Your task to perform on an android device: turn off translation in the chrome app Image 0: 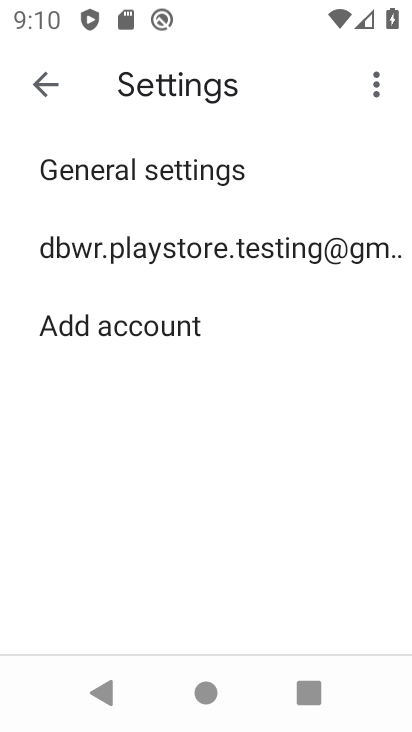
Step 0: press back button
Your task to perform on an android device: turn off translation in the chrome app Image 1: 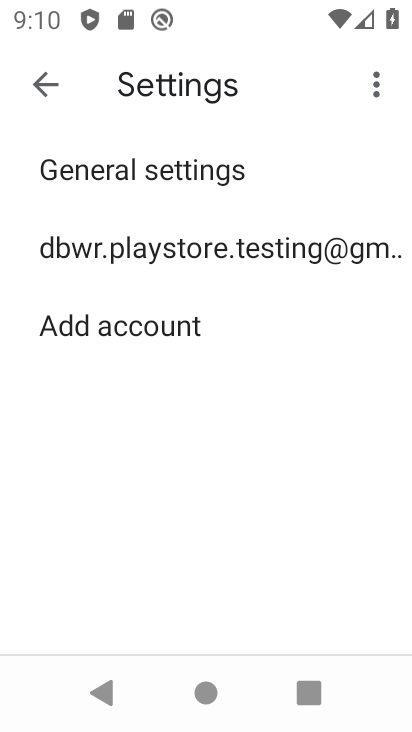
Step 1: press back button
Your task to perform on an android device: turn off translation in the chrome app Image 2: 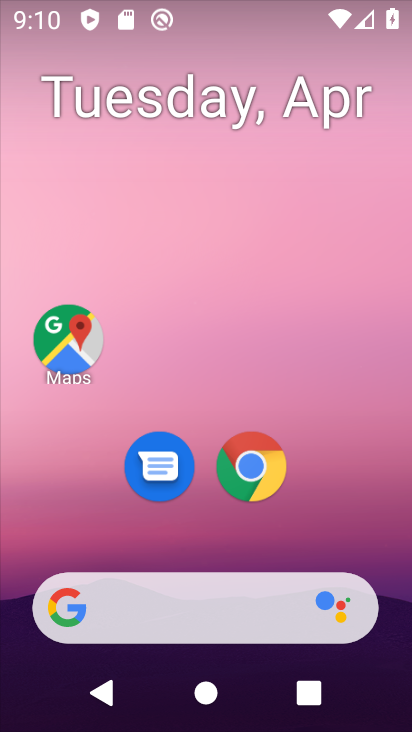
Step 2: click (247, 486)
Your task to perform on an android device: turn off translation in the chrome app Image 3: 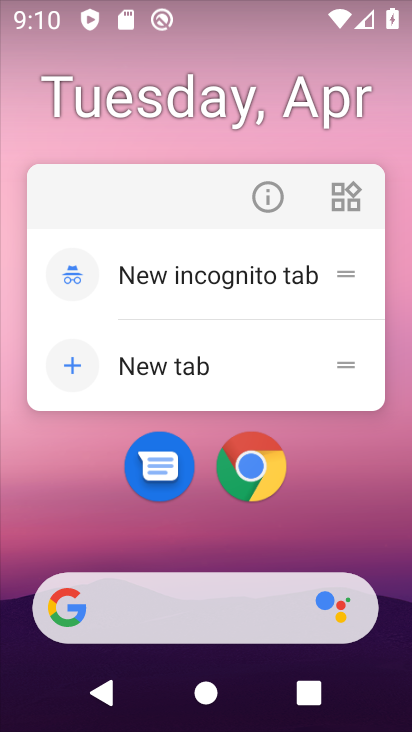
Step 3: click (247, 486)
Your task to perform on an android device: turn off translation in the chrome app Image 4: 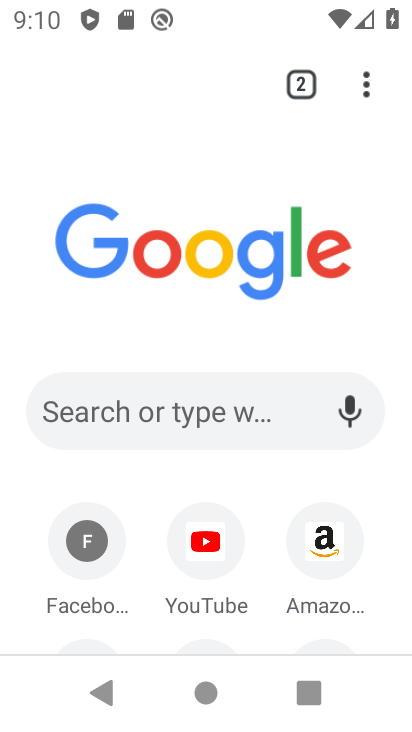
Step 4: click (378, 83)
Your task to perform on an android device: turn off translation in the chrome app Image 5: 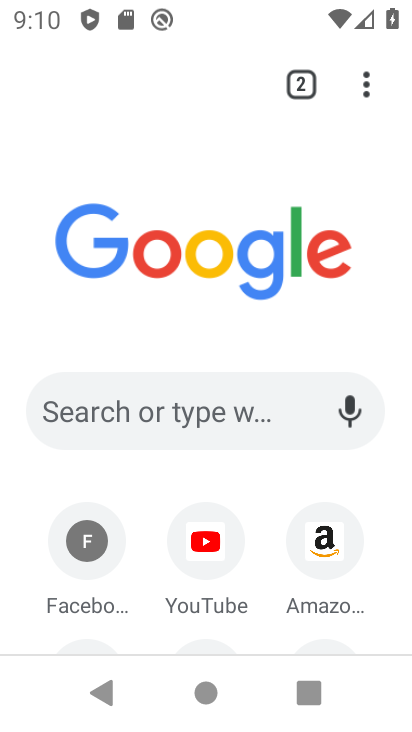
Step 5: click (374, 103)
Your task to perform on an android device: turn off translation in the chrome app Image 6: 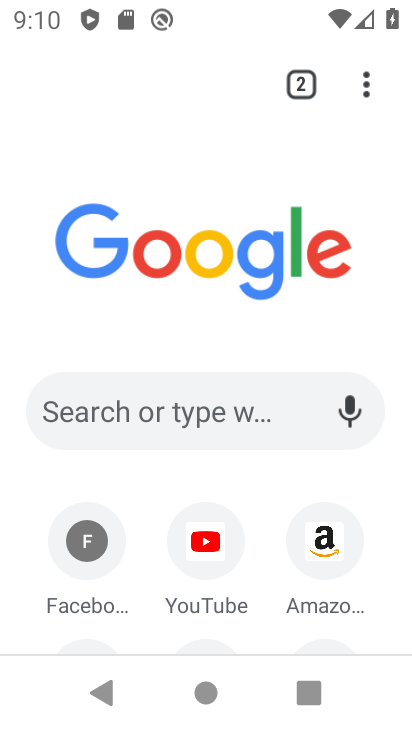
Step 6: click (370, 80)
Your task to perform on an android device: turn off translation in the chrome app Image 7: 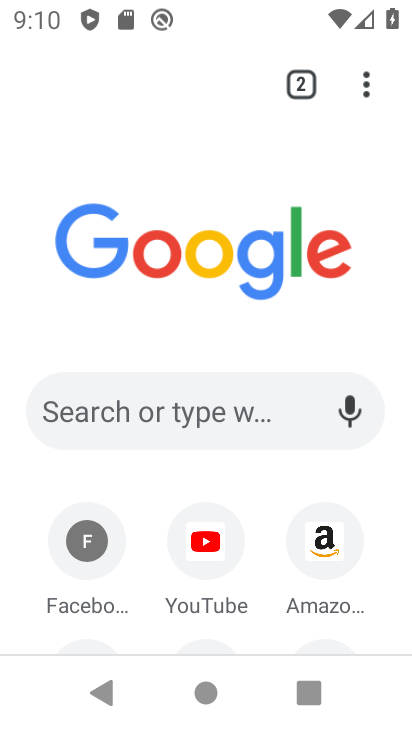
Step 7: click (361, 81)
Your task to perform on an android device: turn off translation in the chrome app Image 8: 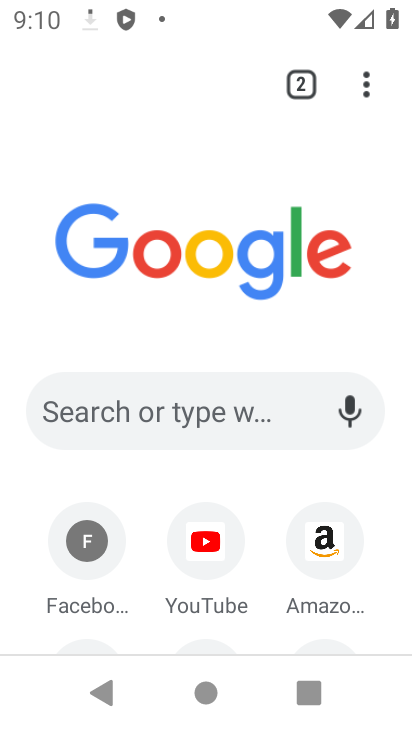
Step 8: click (384, 85)
Your task to perform on an android device: turn off translation in the chrome app Image 9: 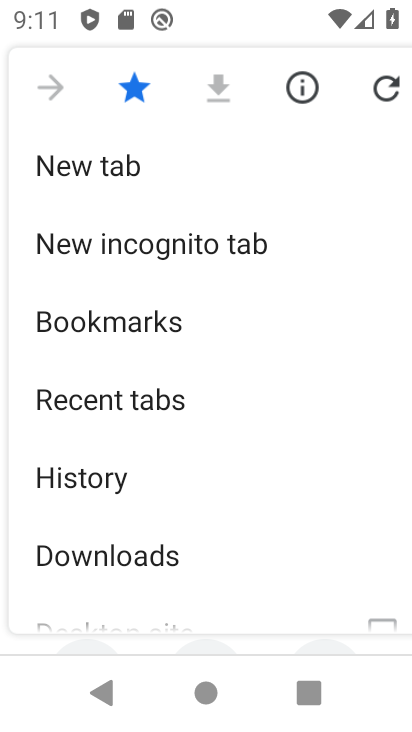
Step 9: drag from (131, 441) to (101, 322)
Your task to perform on an android device: turn off translation in the chrome app Image 10: 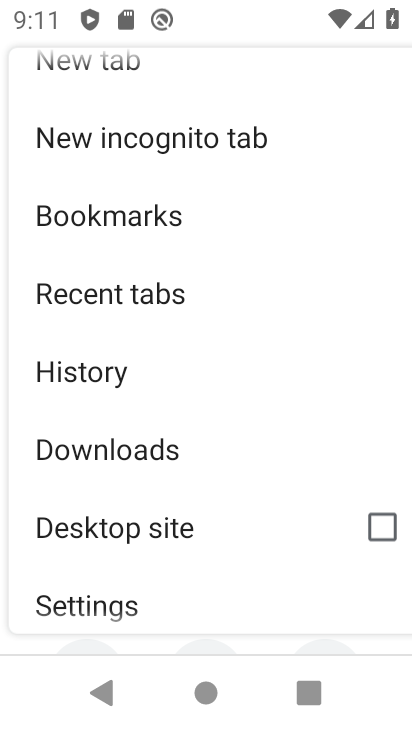
Step 10: drag from (136, 571) to (133, 478)
Your task to perform on an android device: turn off translation in the chrome app Image 11: 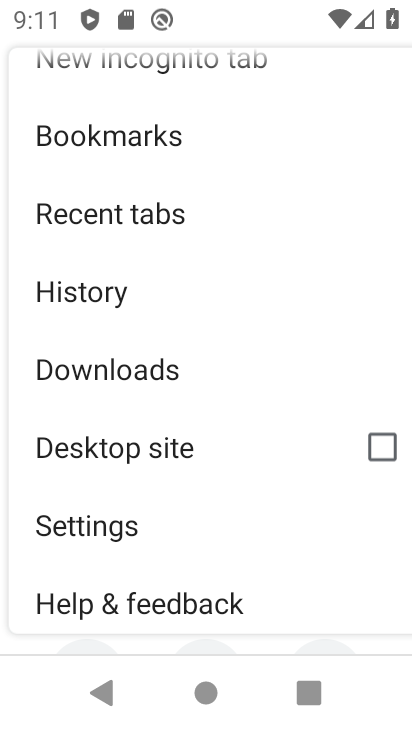
Step 11: click (131, 510)
Your task to perform on an android device: turn off translation in the chrome app Image 12: 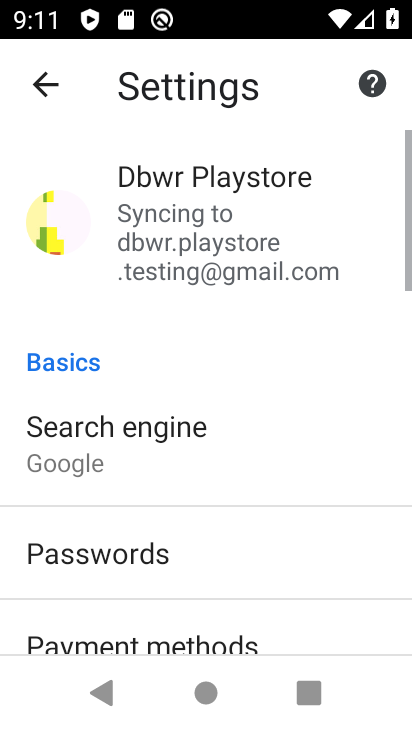
Step 12: drag from (131, 510) to (68, 243)
Your task to perform on an android device: turn off translation in the chrome app Image 13: 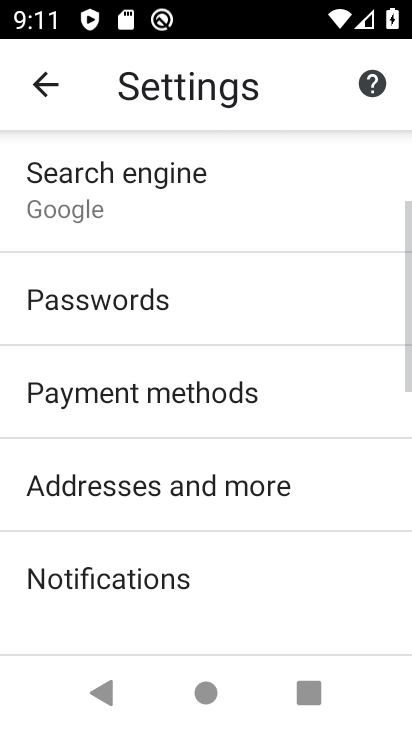
Step 13: drag from (121, 508) to (100, 188)
Your task to perform on an android device: turn off translation in the chrome app Image 14: 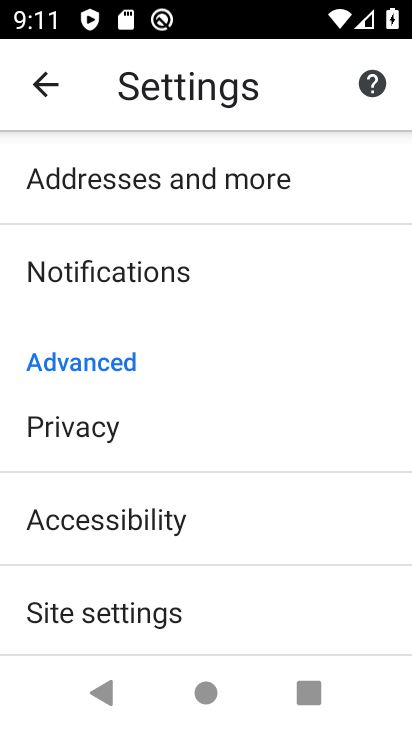
Step 14: drag from (206, 542) to (174, 301)
Your task to perform on an android device: turn off translation in the chrome app Image 15: 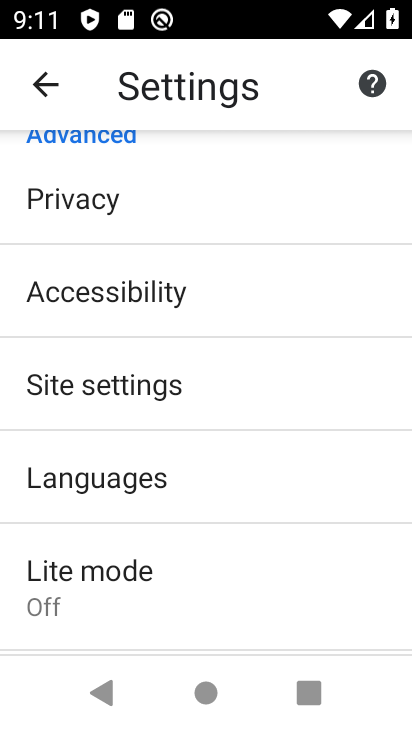
Step 15: click (156, 499)
Your task to perform on an android device: turn off translation in the chrome app Image 16: 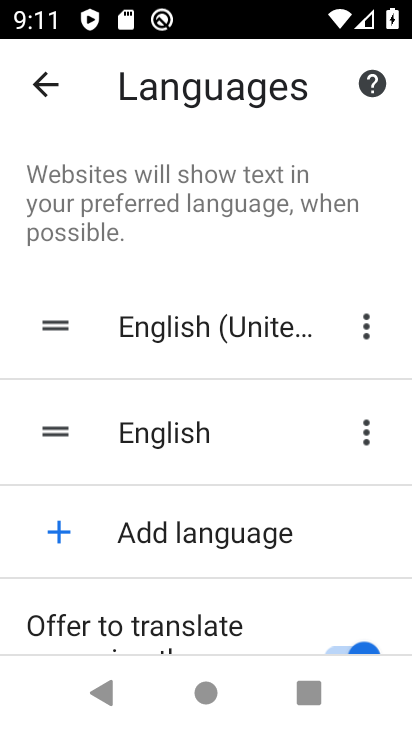
Step 16: click (281, 626)
Your task to perform on an android device: turn off translation in the chrome app Image 17: 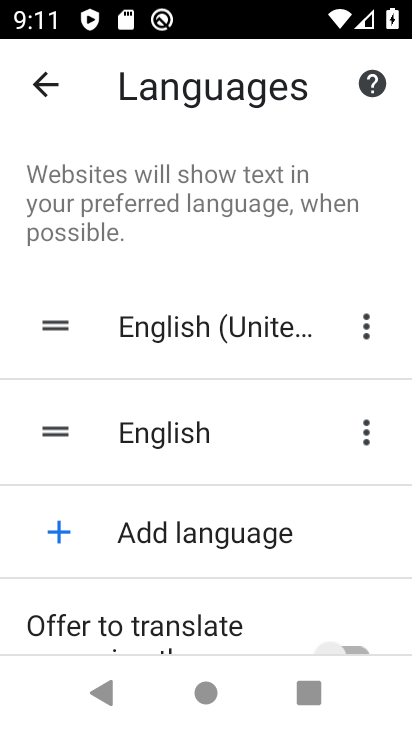
Step 17: task complete